Your task to perform on an android device: empty trash in the gmail app Image 0: 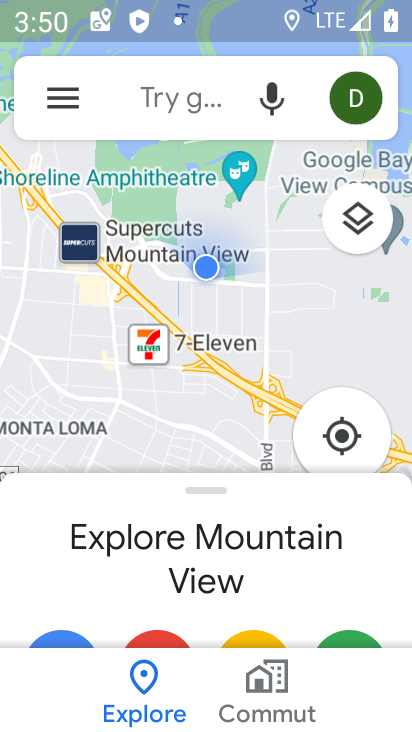
Step 0: press back button
Your task to perform on an android device: empty trash in the gmail app Image 1: 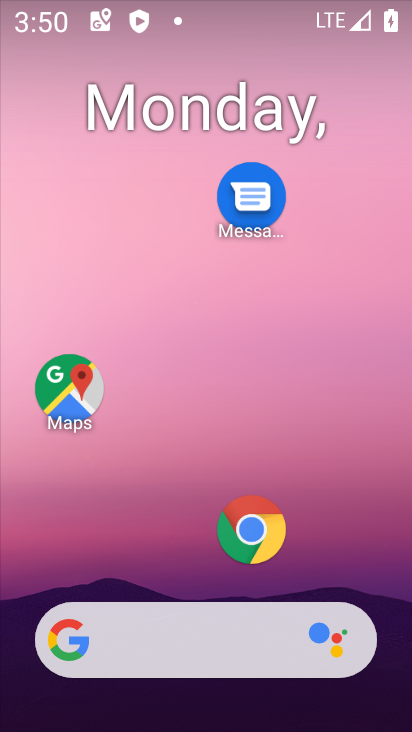
Step 1: drag from (149, 581) to (228, 47)
Your task to perform on an android device: empty trash in the gmail app Image 2: 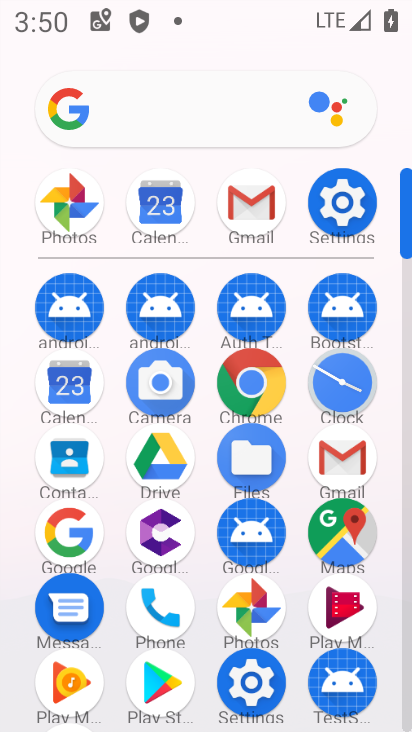
Step 2: click (250, 196)
Your task to perform on an android device: empty trash in the gmail app Image 3: 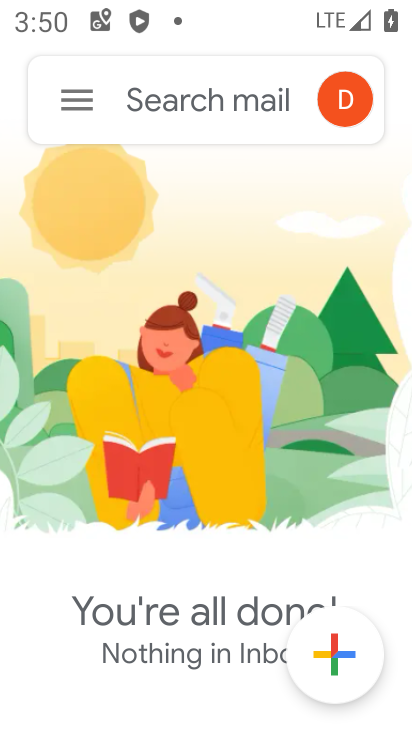
Step 3: click (65, 110)
Your task to perform on an android device: empty trash in the gmail app Image 4: 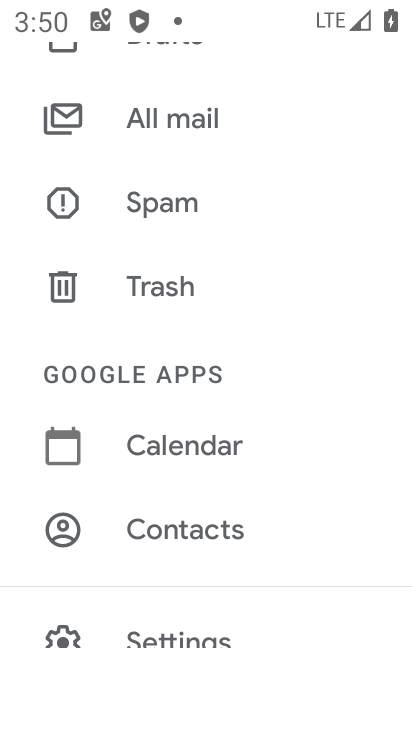
Step 4: click (179, 284)
Your task to perform on an android device: empty trash in the gmail app Image 5: 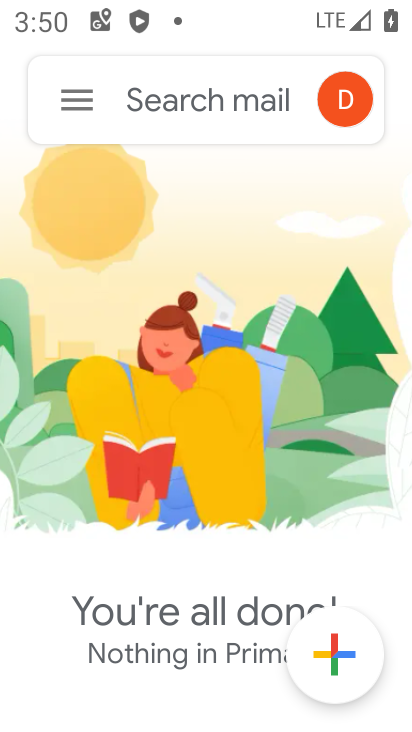
Step 5: task complete